Your task to perform on an android device: turn on bluetooth scan Image 0: 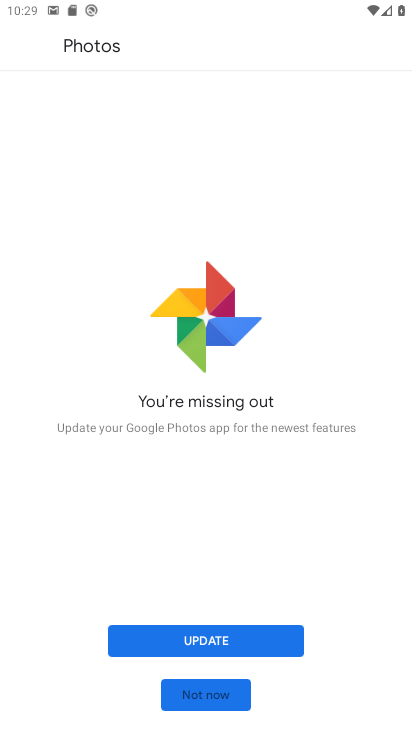
Step 0: press home button
Your task to perform on an android device: turn on bluetooth scan Image 1: 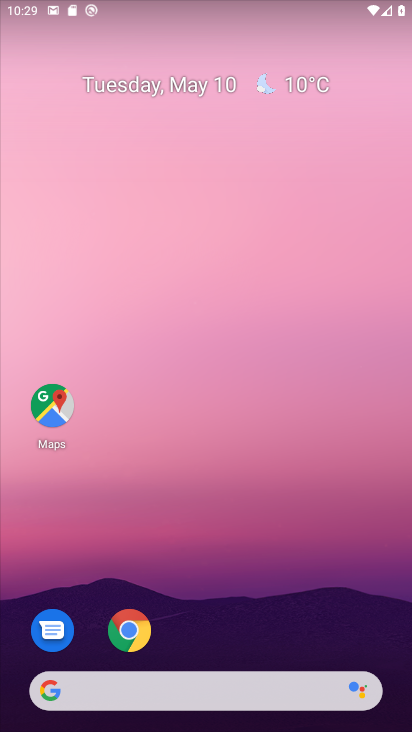
Step 1: drag from (217, 545) to (215, 72)
Your task to perform on an android device: turn on bluetooth scan Image 2: 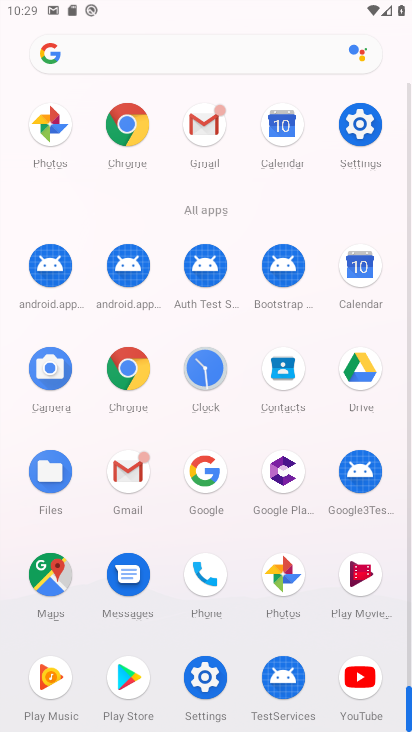
Step 2: click (367, 124)
Your task to perform on an android device: turn on bluetooth scan Image 3: 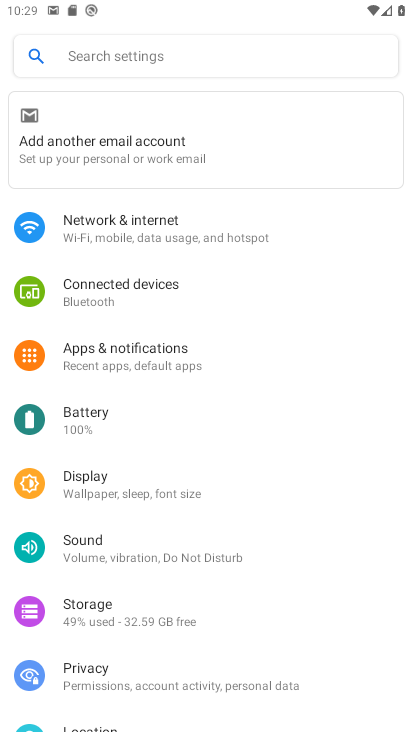
Step 3: drag from (208, 585) to (227, 340)
Your task to perform on an android device: turn on bluetooth scan Image 4: 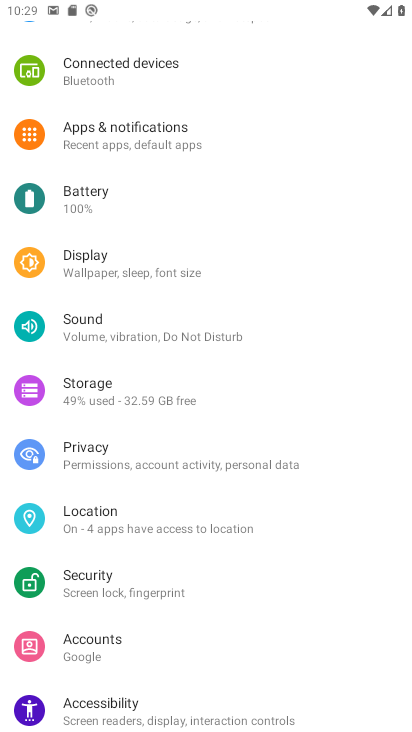
Step 4: click (167, 515)
Your task to perform on an android device: turn on bluetooth scan Image 5: 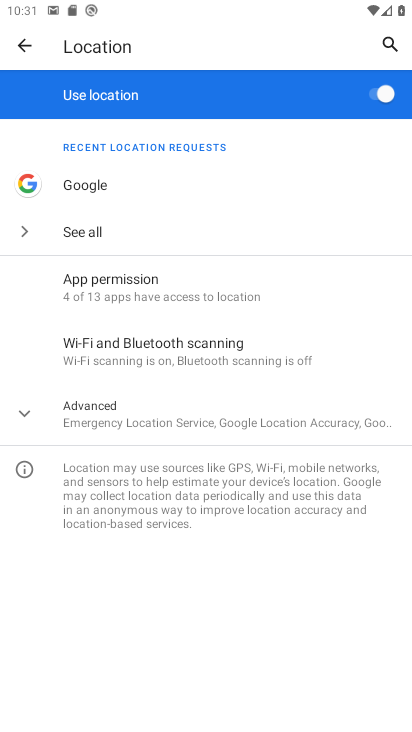
Step 5: click (190, 357)
Your task to perform on an android device: turn on bluetooth scan Image 6: 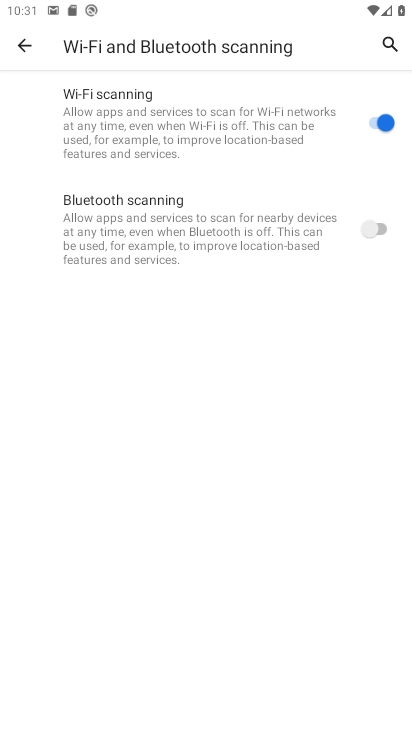
Step 6: click (384, 226)
Your task to perform on an android device: turn on bluetooth scan Image 7: 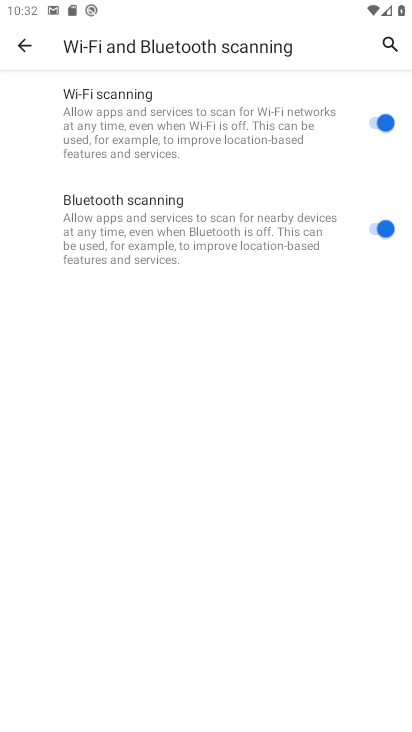
Step 7: task complete